Your task to perform on an android device: Open Youtube and go to "Your channel" Image 0: 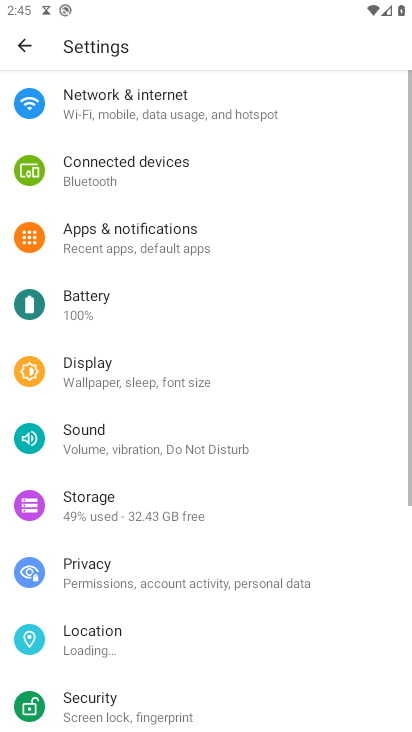
Step 0: press home button
Your task to perform on an android device: Open Youtube and go to "Your channel" Image 1: 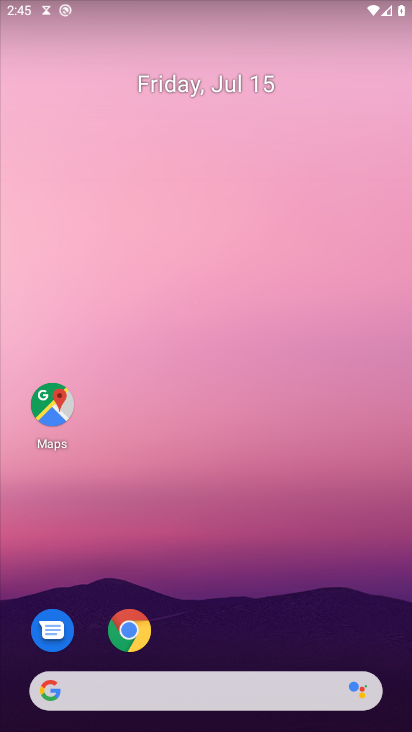
Step 1: drag from (212, 588) to (148, 71)
Your task to perform on an android device: Open Youtube and go to "Your channel" Image 2: 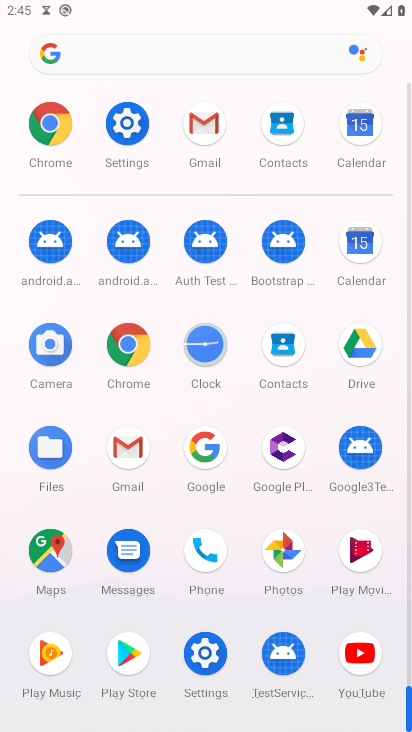
Step 2: click (355, 662)
Your task to perform on an android device: Open Youtube and go to "Your channel" Image 3: 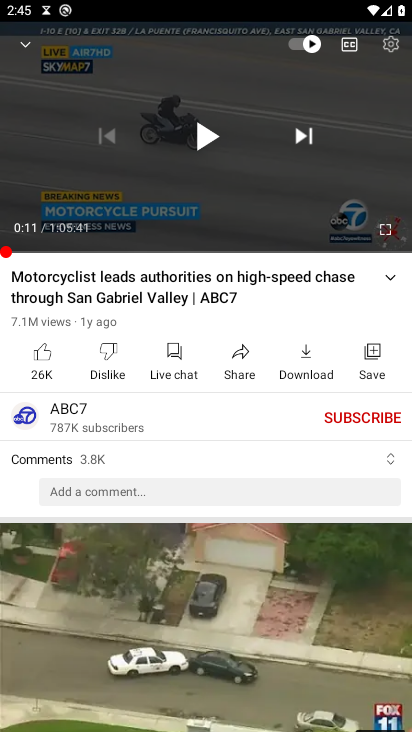
Step 3: press back button
Your task to perform on an android device: Open Youtube and go to "Your channel" Image 4: 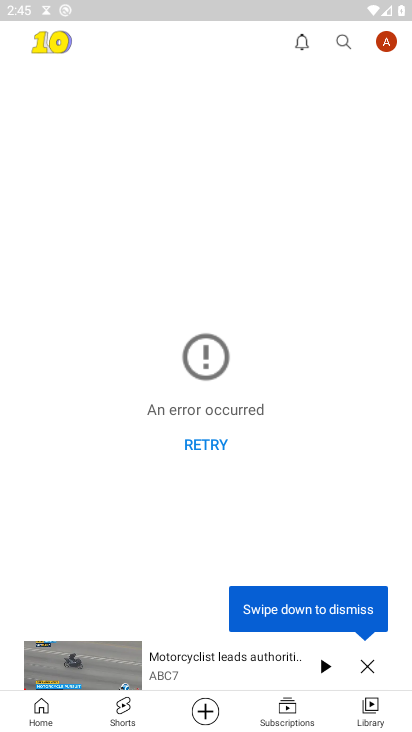
Step 4: click (386, 49)
Your task to perform on an android device: Open Youtube and go to "Your channel" Image 5: 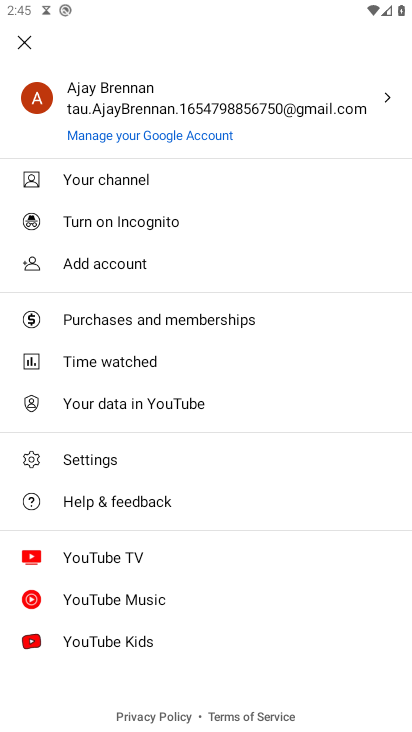
Step 5: click (99, 175)
Your task to perform on an android device: Open Youtube and go to "Your channel" Image 6: 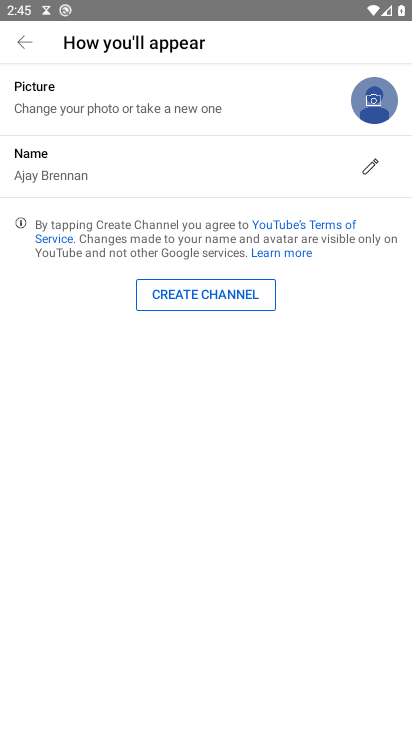
Step 6: task complete